Your task to perform on an android device: manage bookmarks in the chrome app Image 0: 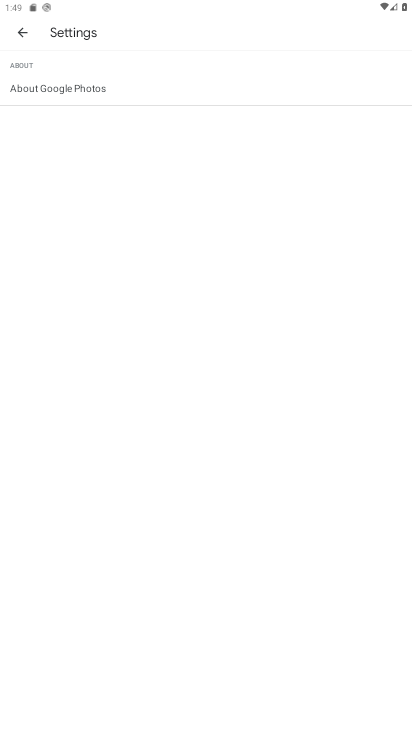
Step 0: press home button
Your task to perform on an android device: manage bookmarks in the chrome app Image 1: 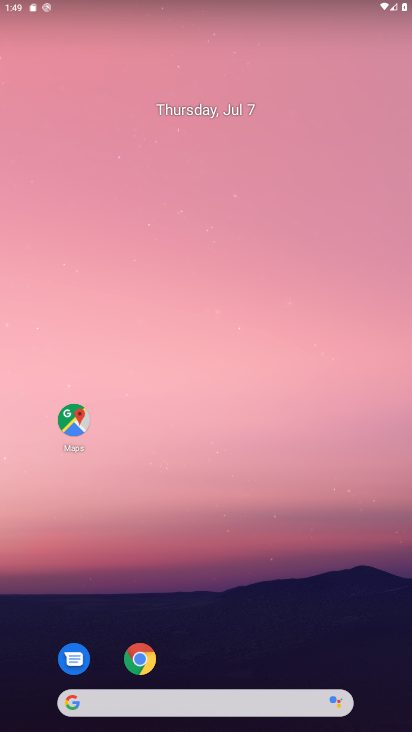
Step 1: click (139, 656)
Your task to perform on an android device: manage bookmarks in the chrome app Image 2: 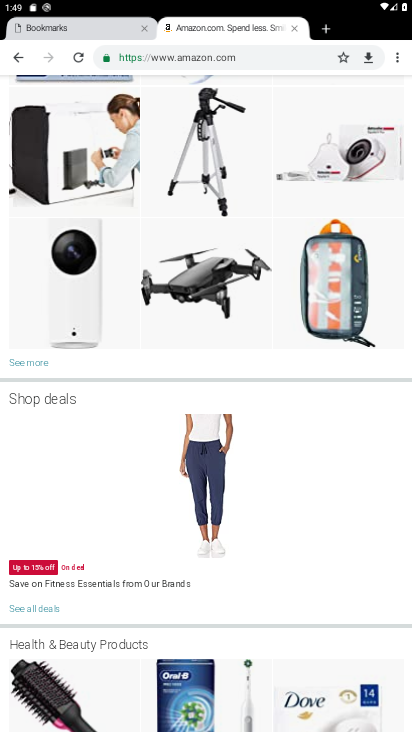
Step 2: click (394, 63)
Your task to perform on an android device: manage bookmarks in the chrome app Image 3: 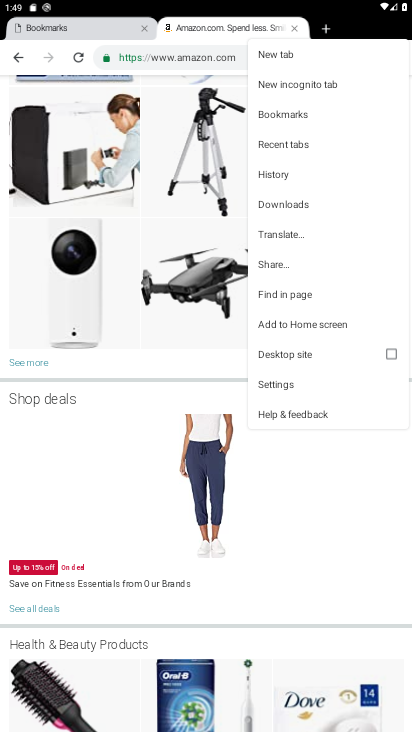
Step 3: click (301, 115)
Your task to perform on an android device: manage bookmarks in the chrome app Image 4: 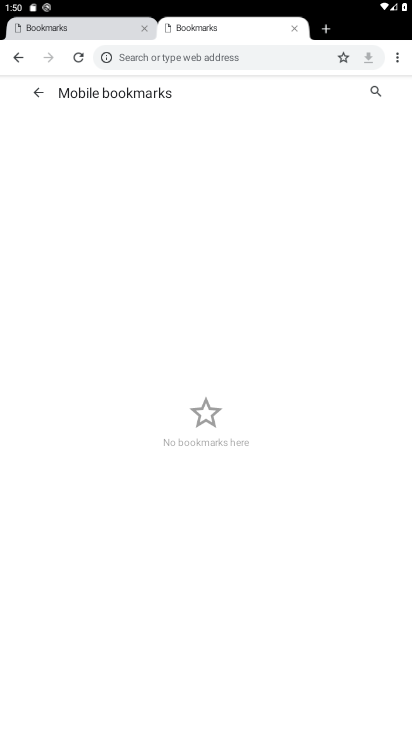
Step 4: task complete